Your task to perform on an android device: delete a single message in the gmail app Image 0: 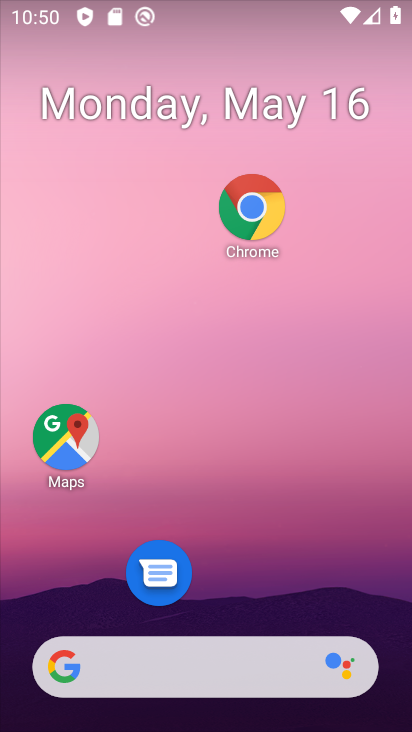
Step 0: drag from (263, 665) to (254, 126)
Your task to perform on an android device: delete a single message in the gmail app Image 1: 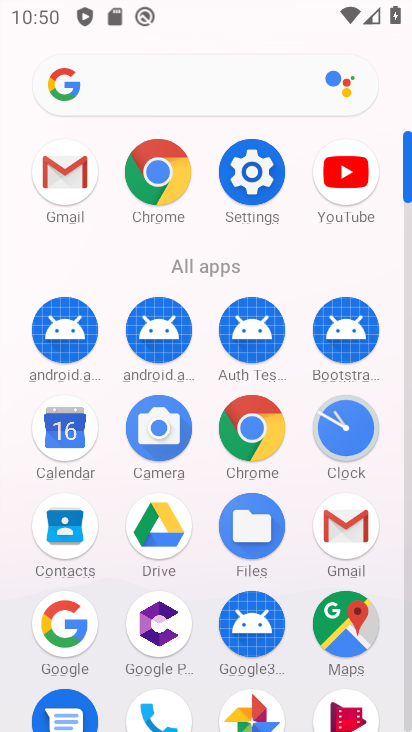
Step 1: click (348, 536)
Your task to perform on an android device: delete a single message in the gmail app Image 2: 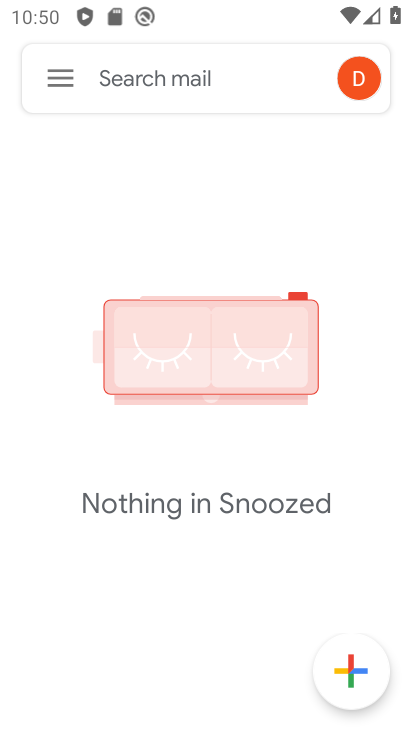
Step 2: click (57, 77)
Your task to perform on an android device: delete a single message in the gmail app Image 3: 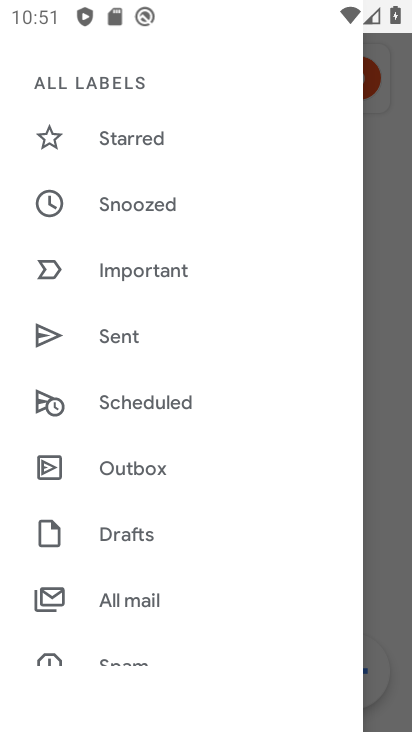
Step 3: click (378, 295)
Your task to perform on an android device: delete a single message in the gmail app Image 4: 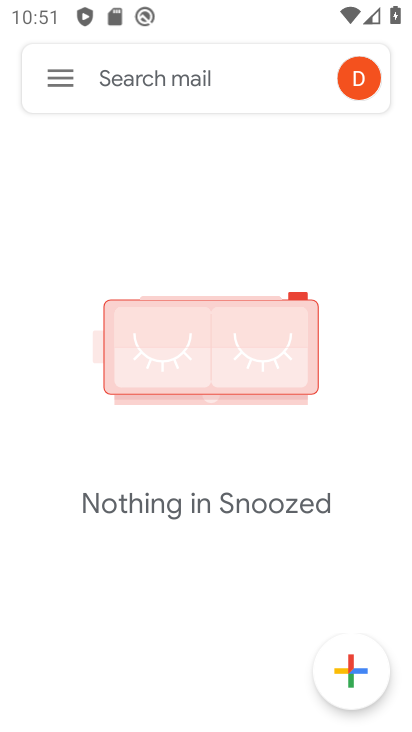
Step 4: task complete